Your task to perform on an android device: Go to Maps Image 0: 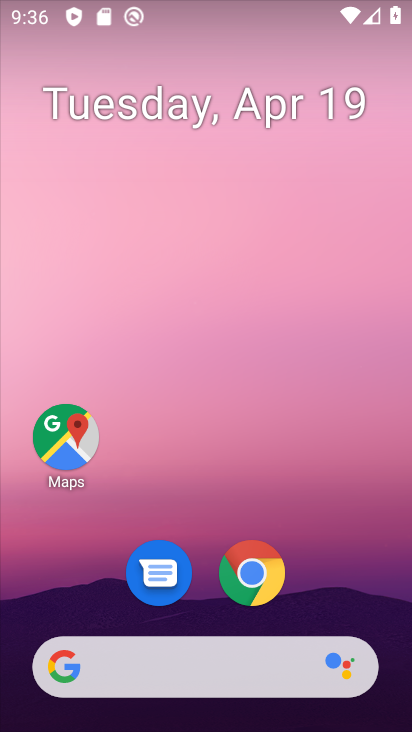
Step 0: drag from (178, 636) to (216, 264)
Your task to perform on an android device: Go to Maps Image 1: 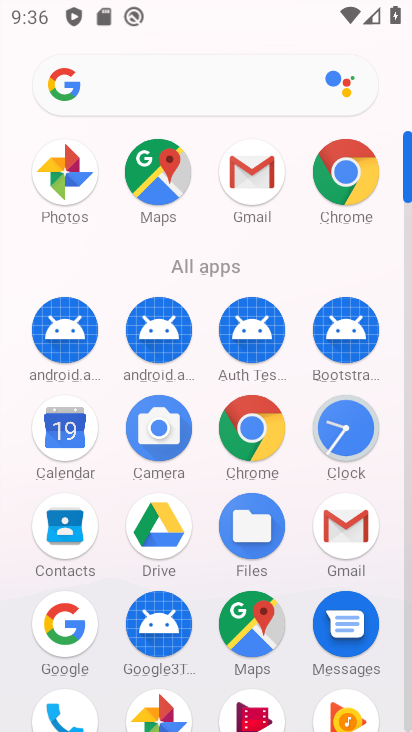
Step 1: click (252, 631)
Your task to perform on an android device: Go to Maps Image 2: 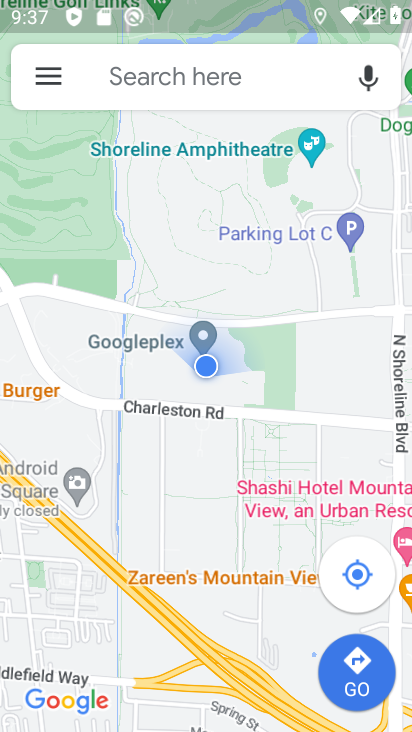
Step 2: task complete